Your task to perform on an android device: turn pop-ups off in chrome Image 0: 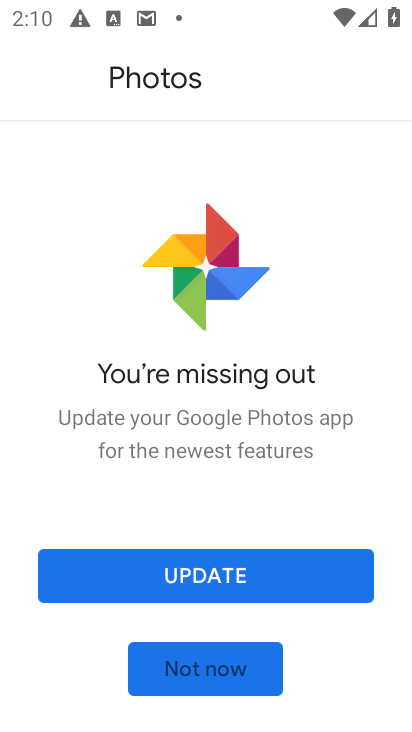
Step 0: press home button
Your task to perform on an android device: turn pop-ups off in chrome Image 1: 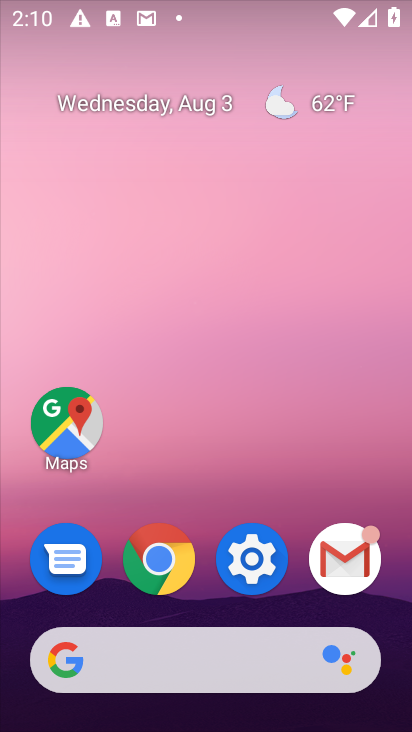
Step 1: click (155, 572)
Your task to perform on an android device: turn pop-ups off in chrome Image 2: 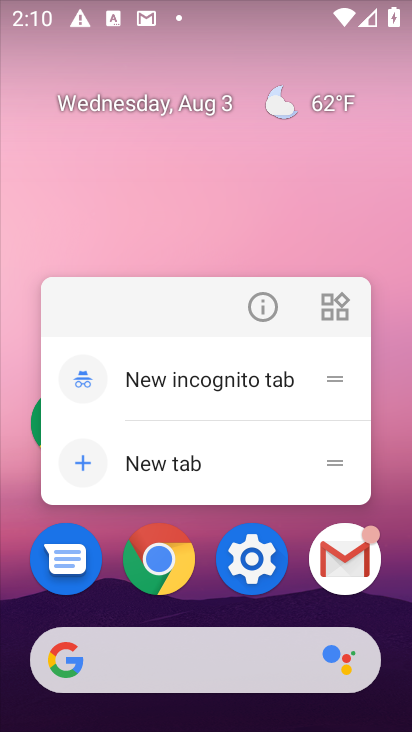
Step 2: click (153, 553)
Your task to perform on an android device: turn pop-ups off in chrome Image 3: 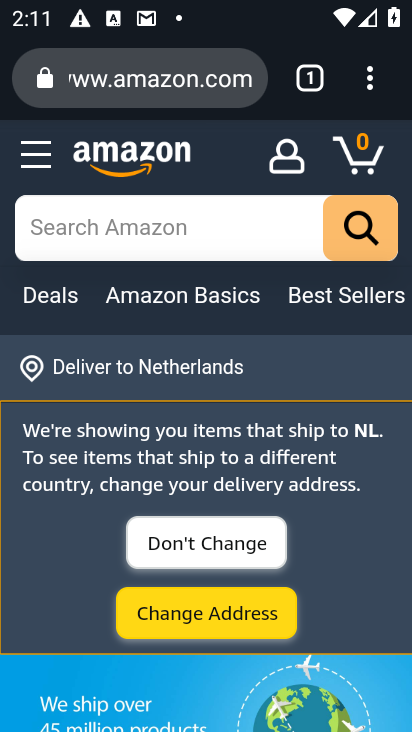
Step 3: click (368, 90)
Your task to perform on an android device: turn pop-ups off in chrome Image 4: 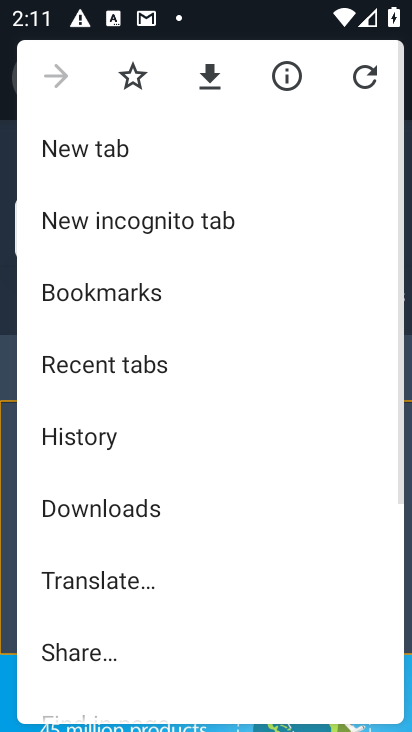
Step 4: drag from (164, 618) to (173, 396)
Your task to perform on an android device: turn pop-ups off in chrome Image 5: 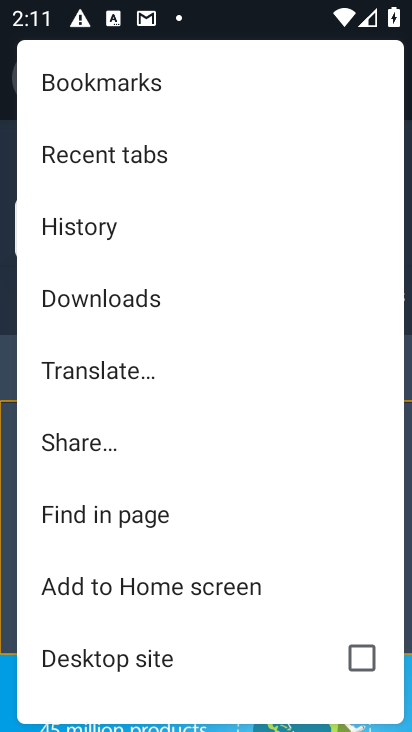
Step 5: drag from (151, 602) to (144, 297)
Your task to perform on an android device: turn pop-ups off in chrome Image 6: 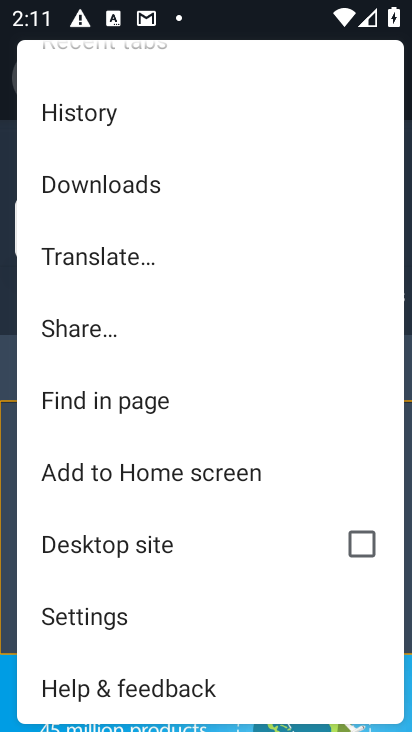
Step 6: click (139, 611)
Your task to perform on an android device: turn pop-ups off in chrome Image 7: 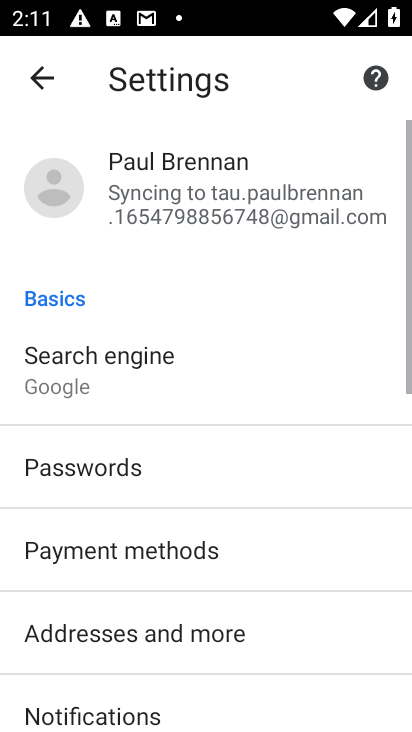
Step 7: drag from (164, 679) to (166, 290)
Your task to perform on an android device: turn pop-ups off in chrome Image 8: 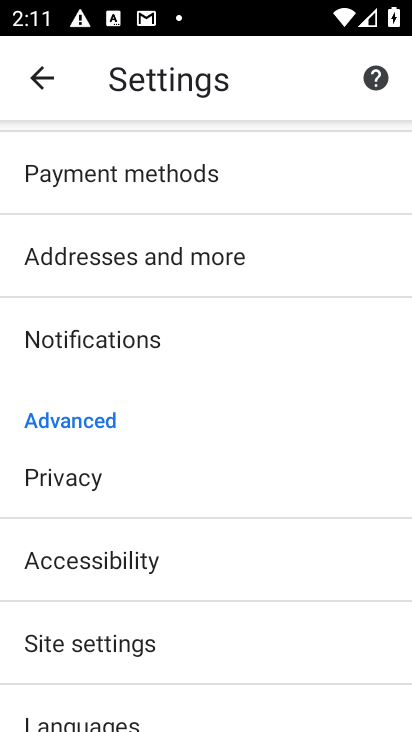
Step 8: click (125, 640)
Your task to perform on an android device: turn pop-ups off in chrome Image 9: 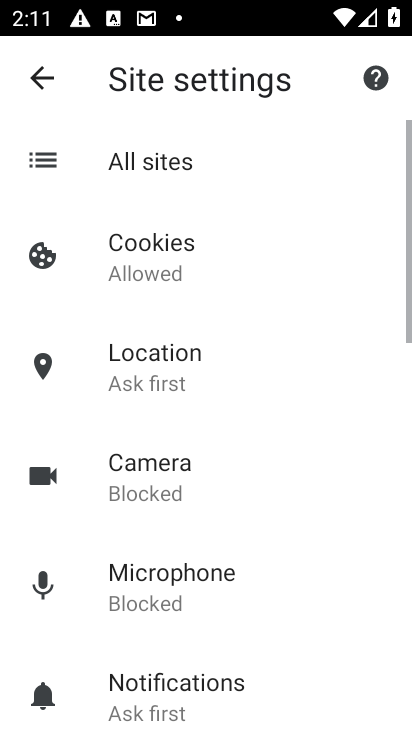
Step 9: drag from (170, 620) to (164, 300)
Your task to perform on an android device: turn pop-ups off in chrome Image 10: 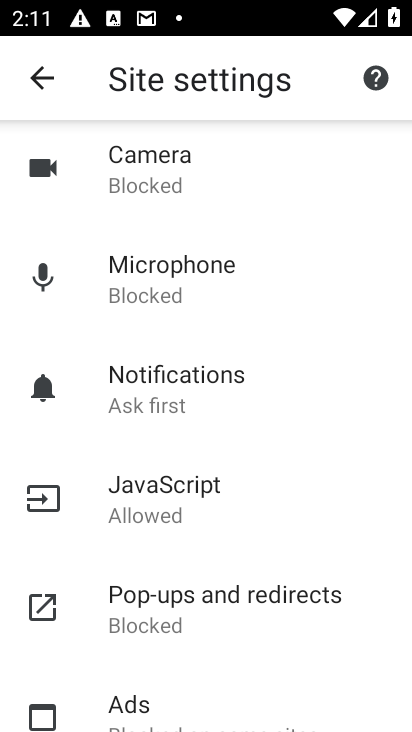
Step 10: click (161, 608)
Your task to perform on an android device: turn pop-ups off in chrome Image 11: 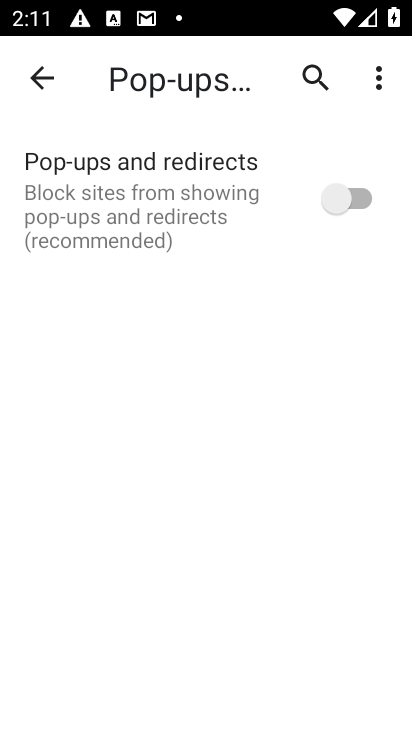
Step 11: click (357, 206)
Your task to perform on an android device: turn pop-ups off in chrome Image 12: 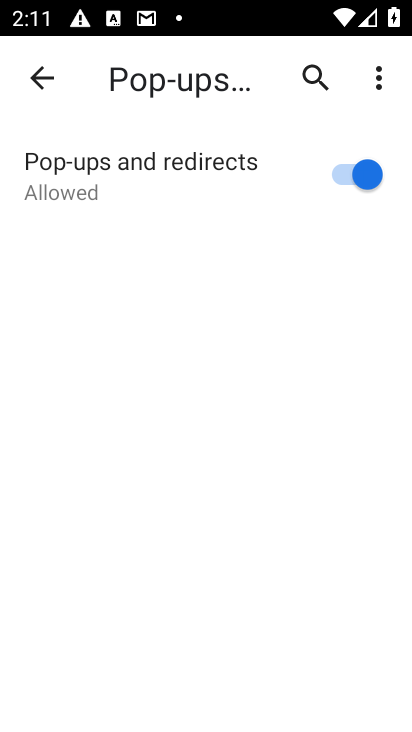
Step 12: click (353, 202)
Your task to perform on an android device: turn pop-ups off in chrome Image 13: 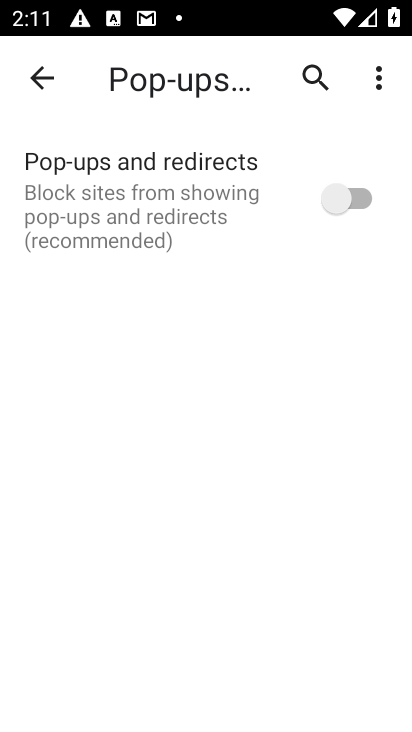
Step 13: task complete